Your task to perform on an android device: delete browsing data in the chrome app Image 0: 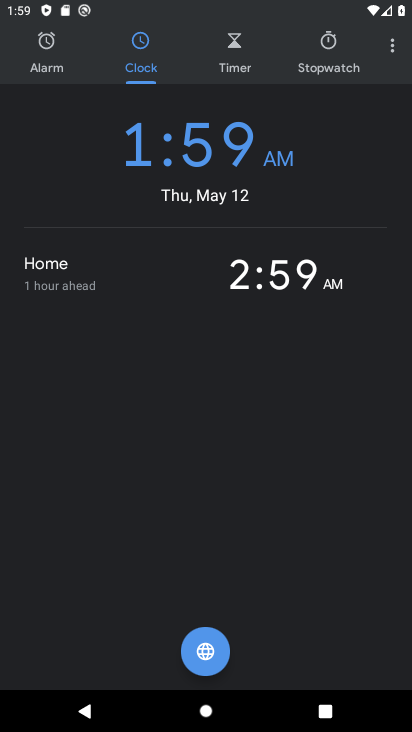
Step 0: task impossible